Your task to perform on an android device: Open sound settings Image 0: 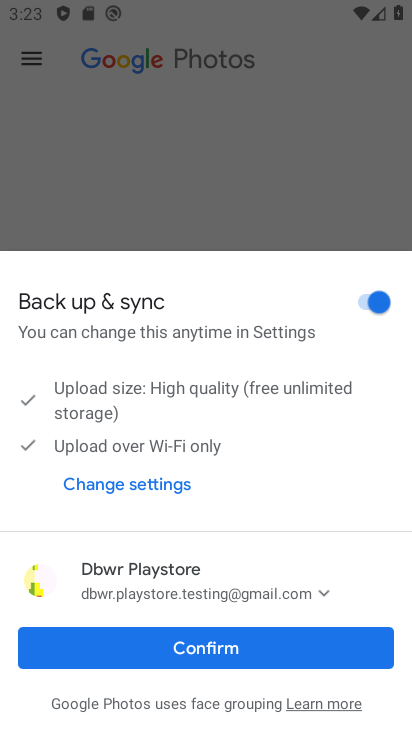
Step 0: press home button
Your task to perform on an android device: Open sound settings Image 1: 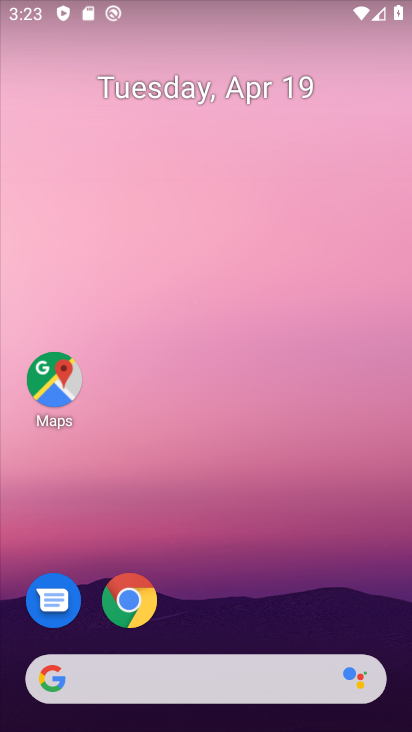
Step 1: drag from (223, 589) to (252, 9)
Your task to perform on an android device: Open sound settings Image 2: 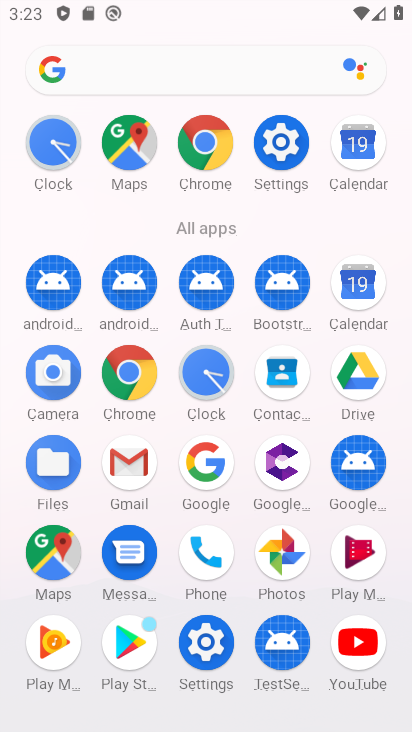
Step 2: click (277, 167)
Your task to perform on an android device: Open sound settings Image 3: 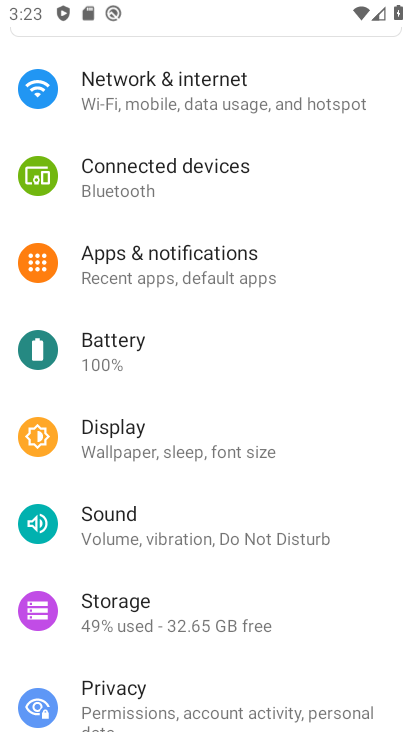
Step 3: click (164, 509)
Your task to perform on an android device: Open sound settings Image 4: 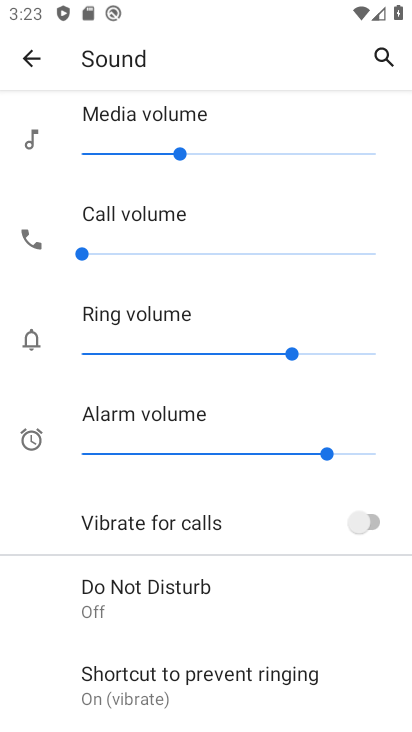
Step 4: task complete